Your task to perform on an android device: change the clock display to analog Image 0: 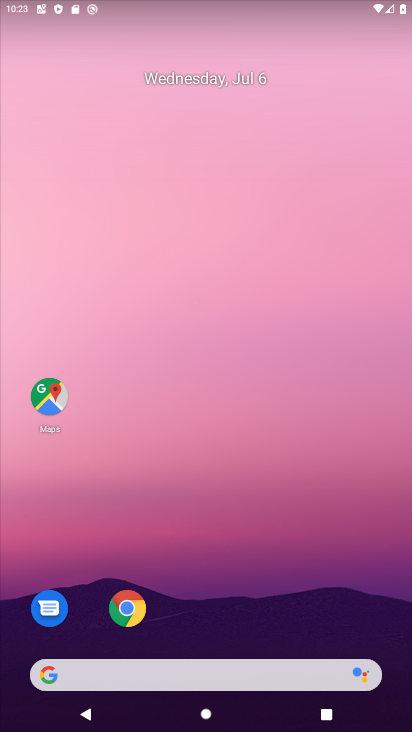
Step 0: drag from (190, 644) to (120, 76)
Your task to perform on an android device: change the clock display to analog Image 1: 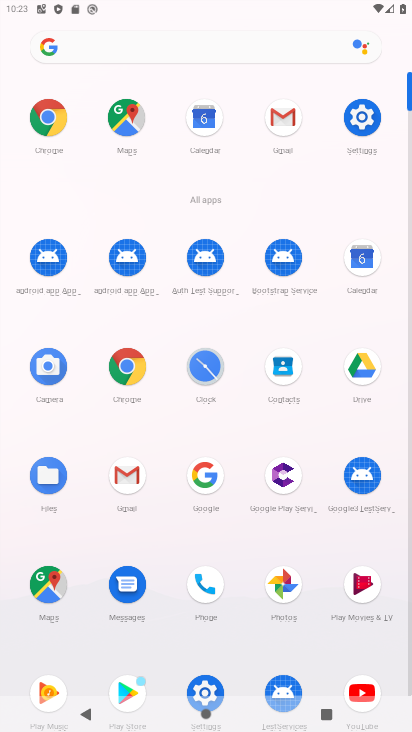
Step 1: click (212, 370)
Your task to perform on an android device: change the clock display to analog Image 2: 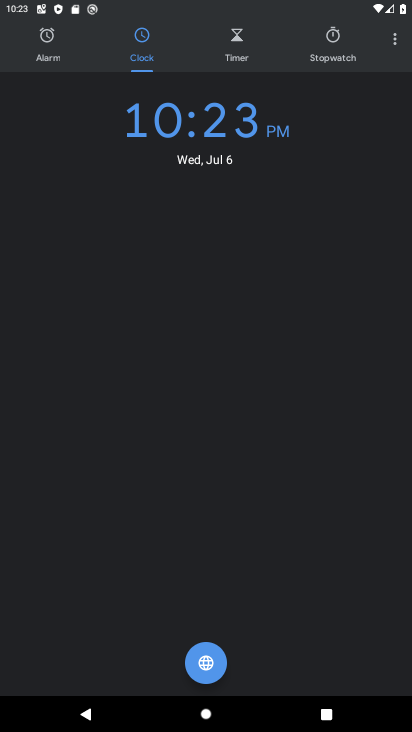
Step 2: click (392, 50)
Your task to perform on an android device: change the clock display to analog Image 3: 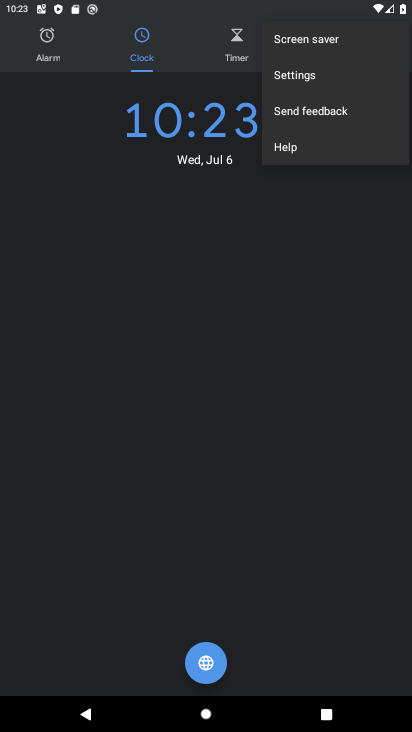
Step 3: click (307, 73)
Your task to perform on an android device: change the clock display to analog Image 4: 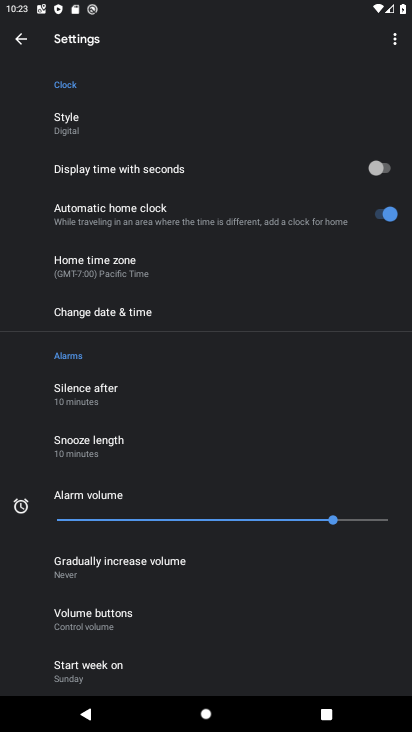
Step 4: click (67, 125)
Your task to perform on an android device: change the clock display to analog Image 5: 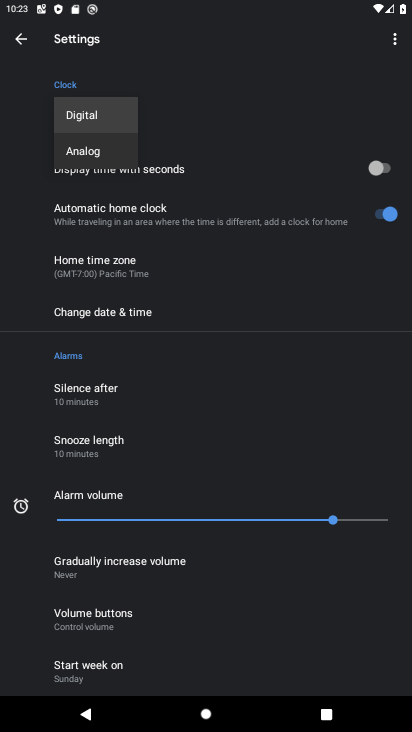
Step 5: click (95, 144)
Your task to perform on an android device: change the clock display to analog Image 6: 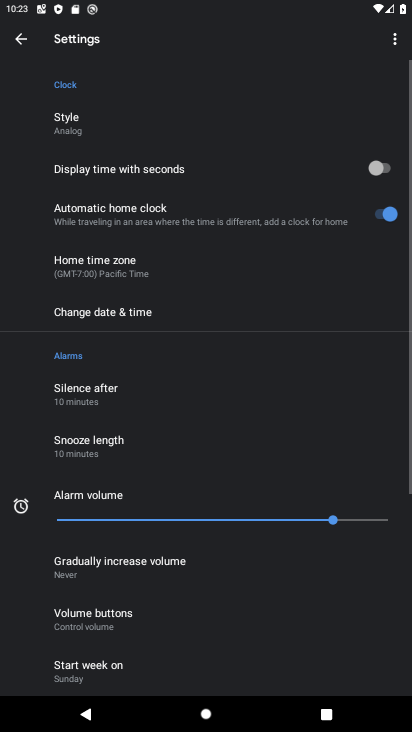
Step 6: task complete